Your task to perform on an android device: install app "Reddit" Image 0: 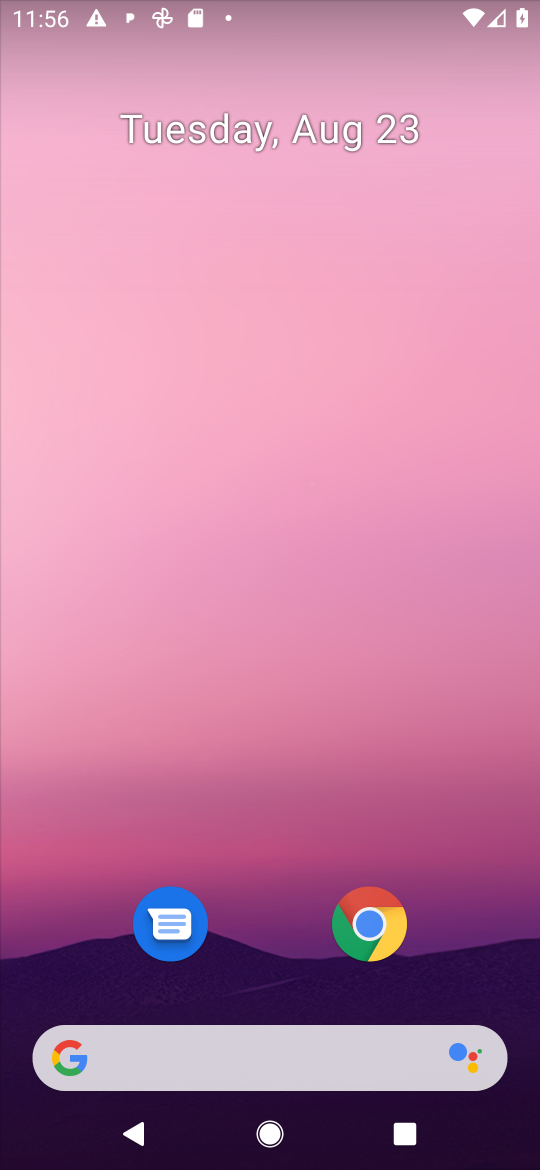
Step 0: press home button
Your task to perform on an android device: install app "Reddit" Image 1: 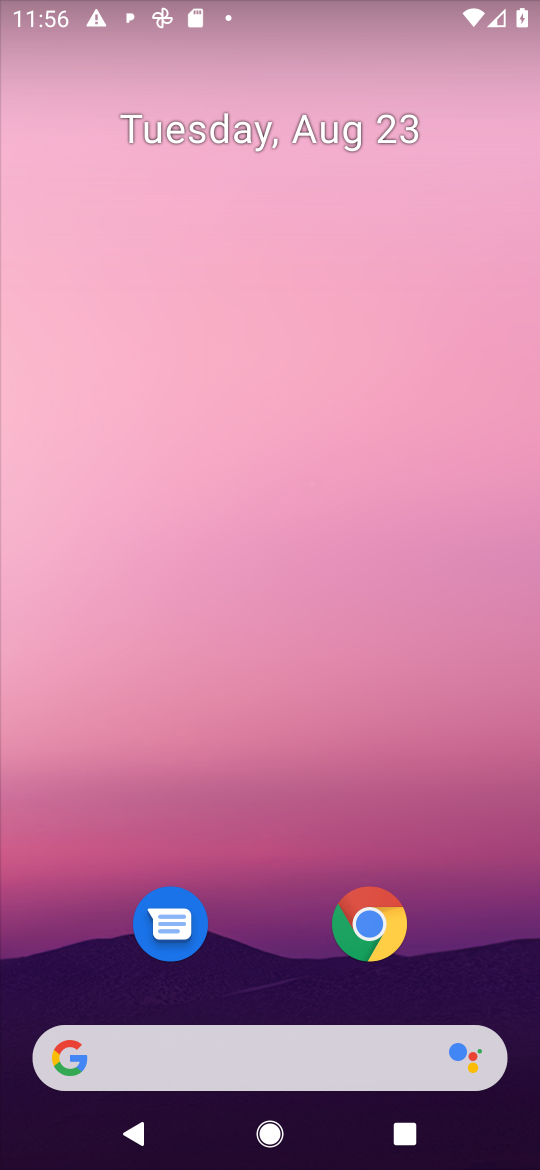
Step 1: drag from (474, 974) to (489, 152)
Your task to perform on an android device: install app "Reddit" Image 2: 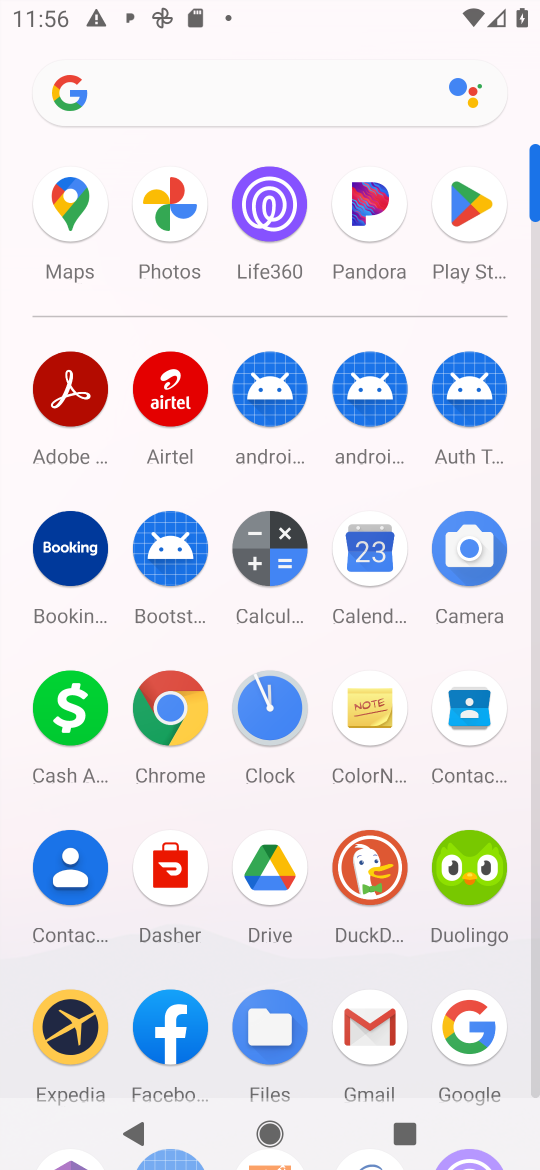
Step 2: click (461, 203)
Your task to perform on an android device: install app "Reddit" Image 3: 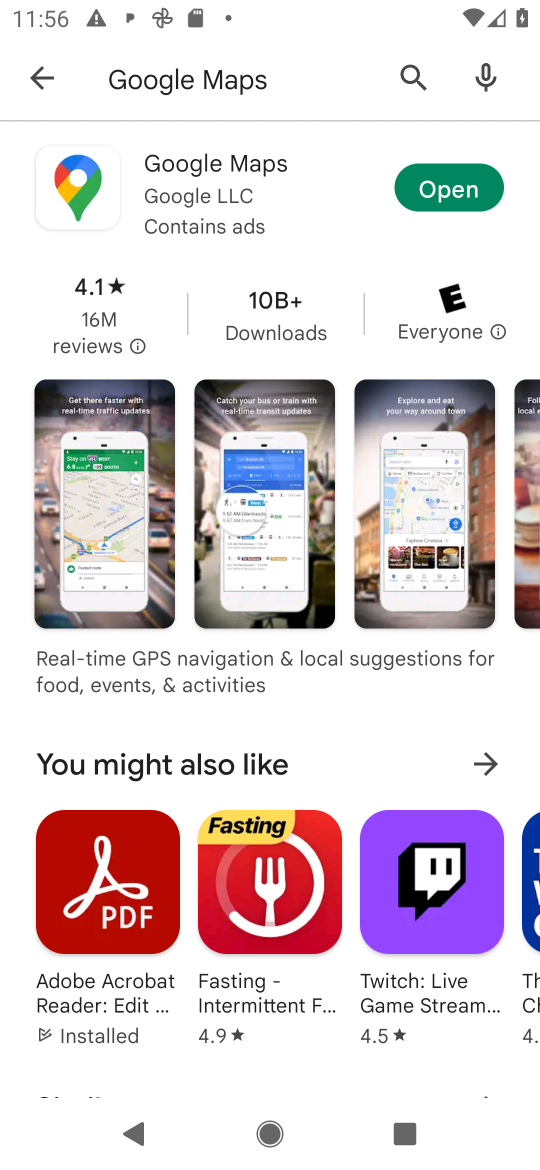
Step 3: press back button
Your task to perform on an android device: install app "Reddit" Image 4: 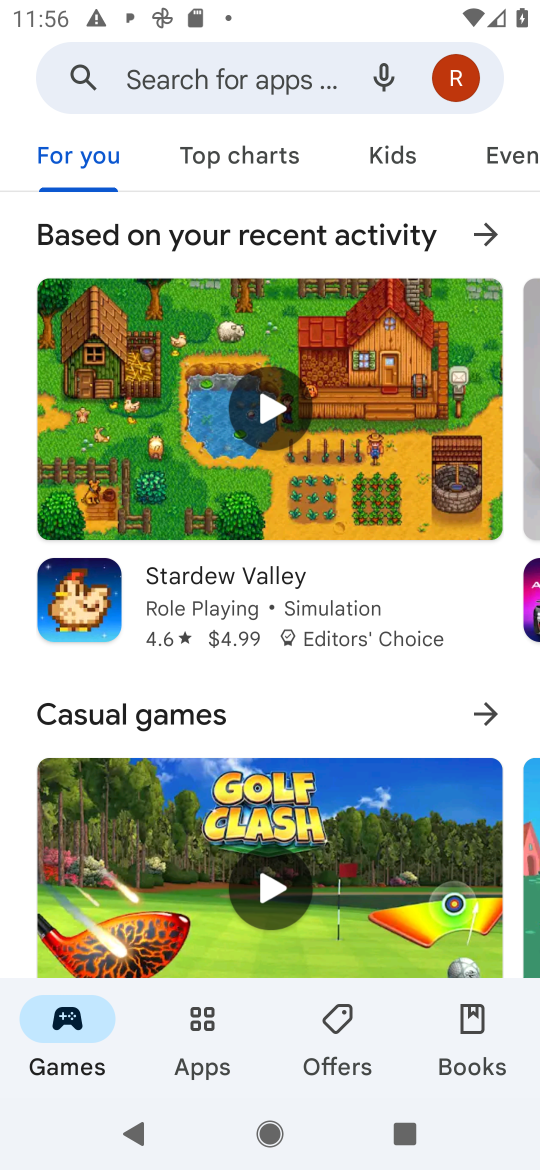
Step 4: click (247, 76)
Your task to perform on an android device: install app "Reddit" Image 5: 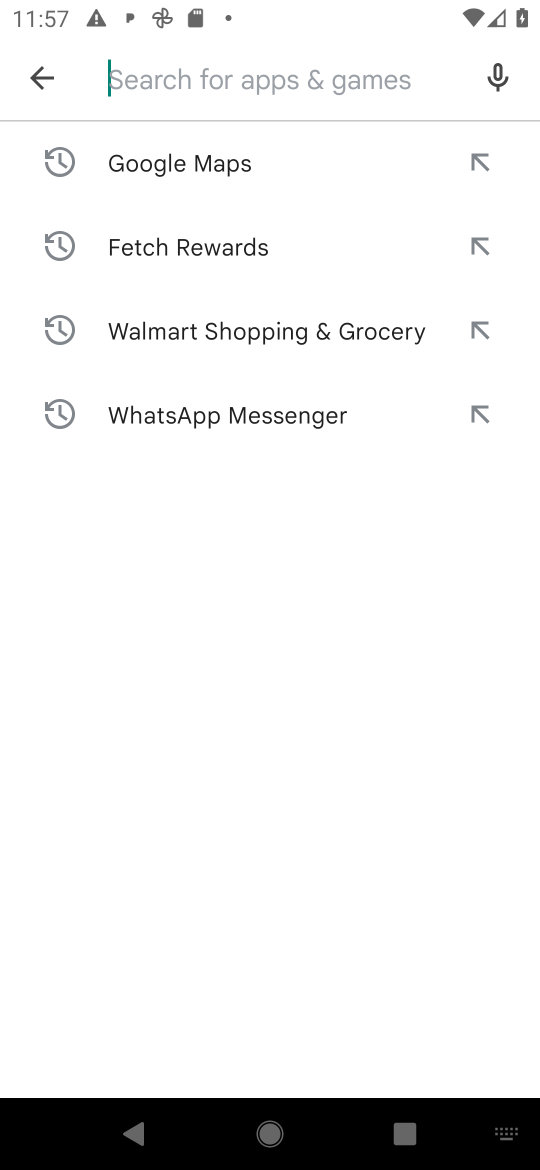
Step 5: press enter
Your task to perform on an android device: install app "Reddit" Image 6: 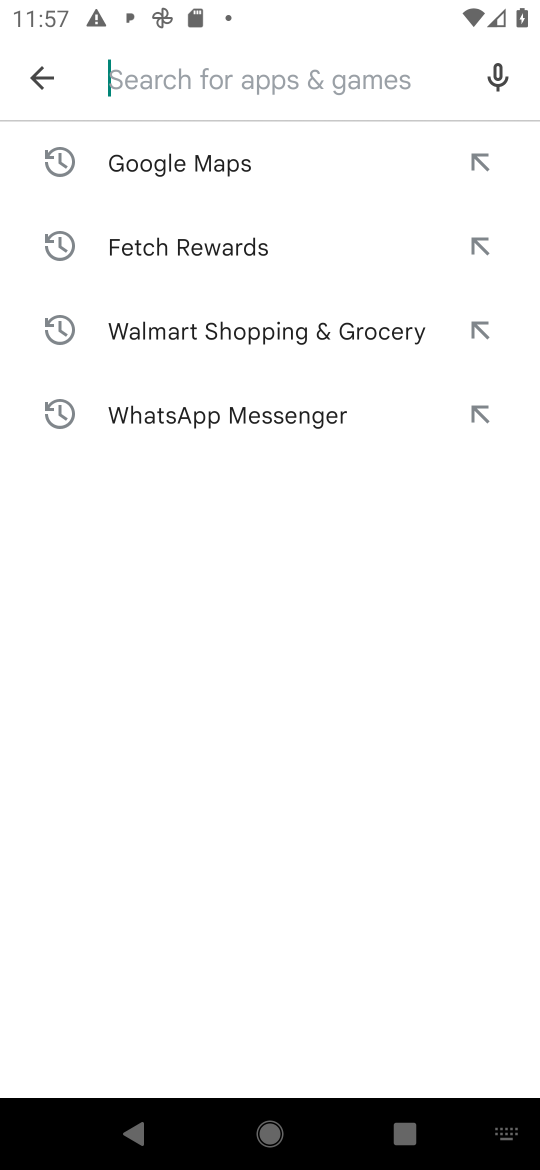
Step 6: type "reddit"
Your task to perform on an android device: install app "Reddit" Image 7: 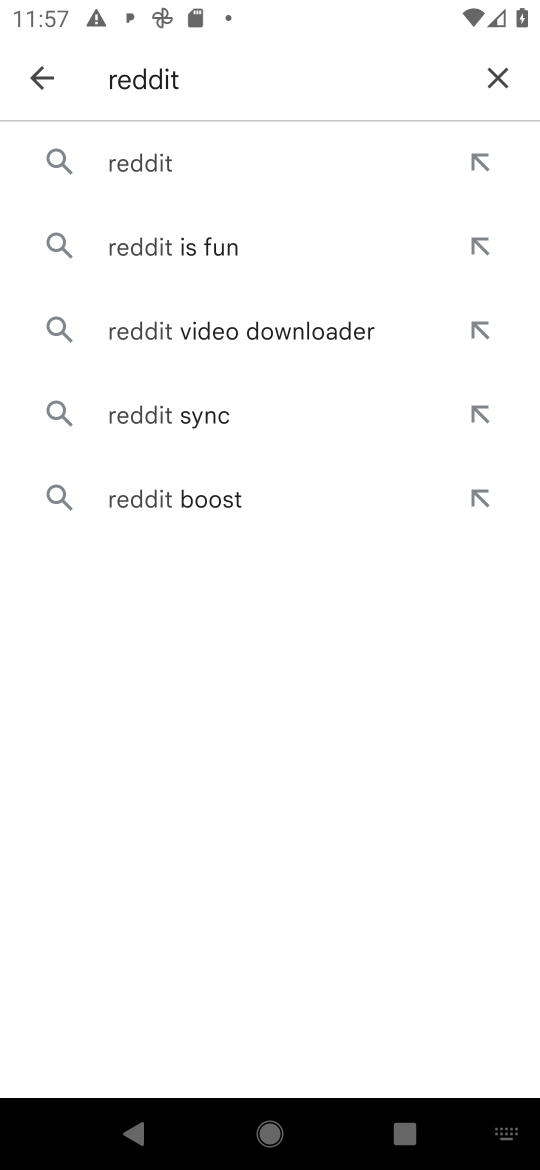
Step 7: click (206, 155)
Your task to perform on an android device: install app "Reddit" Image 8: 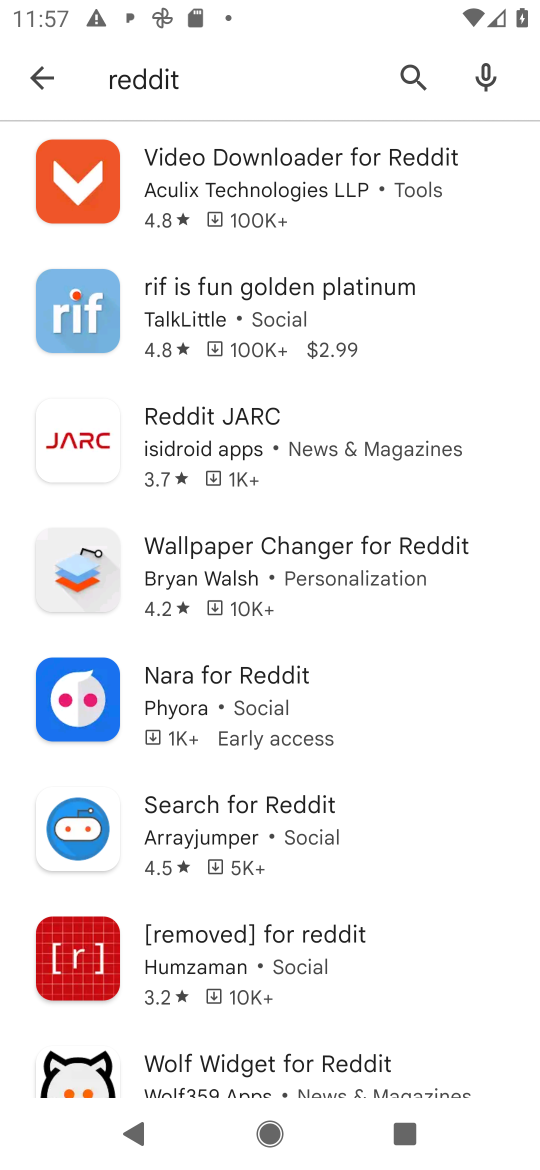
Step 8: task complete